Your task to perform on an android device: refresh tabs in the chrome app Image 0: 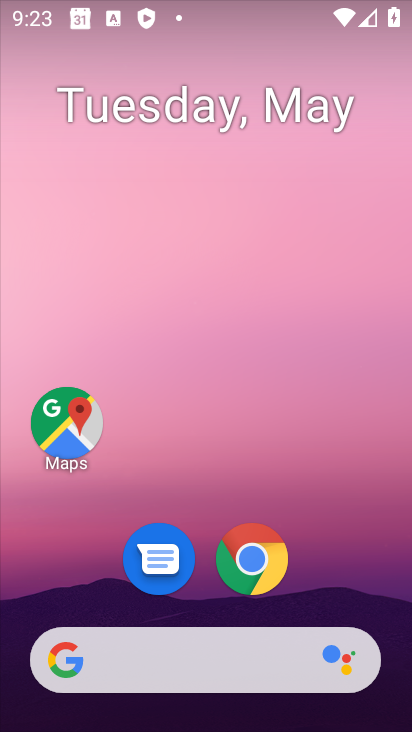
Step 0: click (411, 541)
Your task to perform on an android device: refresh tabs in the chrome app Image 1: 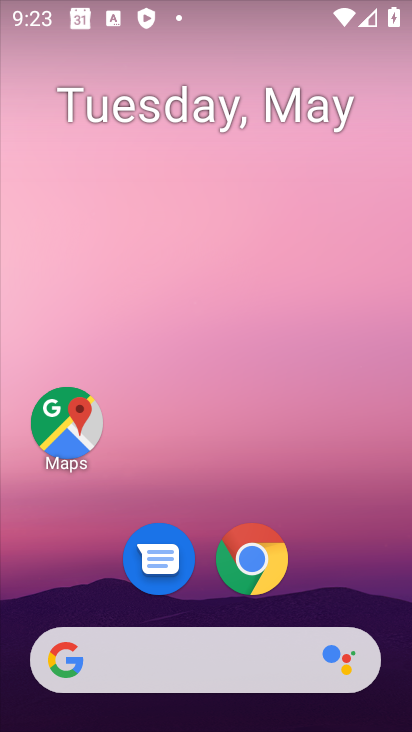
Step 1: click (252, 578)
Your task to perform on an android device: refresh tabs in the chrome app Image 2: 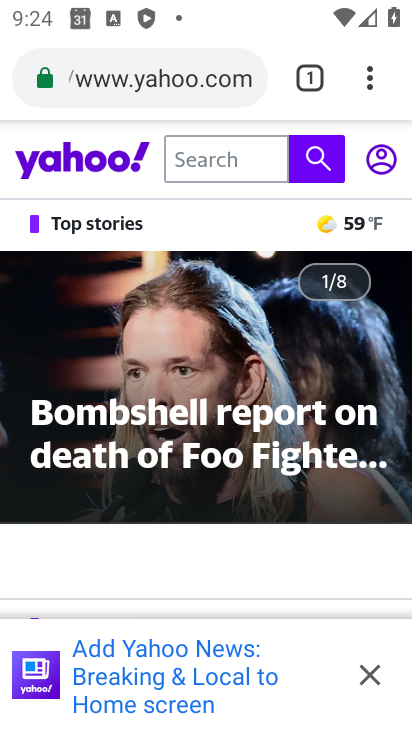
Step 2: click (365, 74)
Your task to perform on an android device: refresh tabs in the chrome app Image 3: 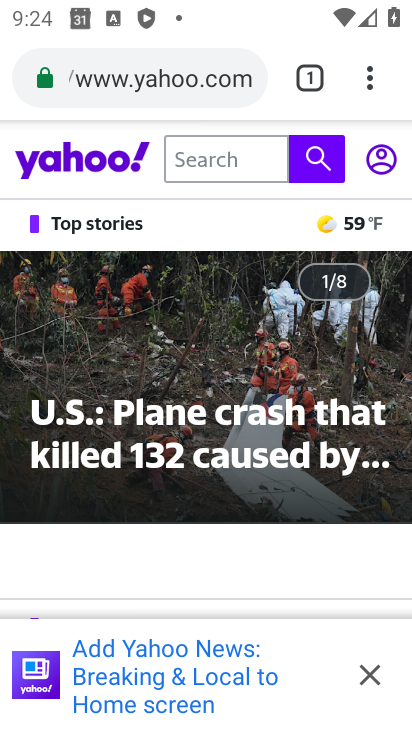
Step 3: task complete